Your task to perform on an android device: turn off location Image 0: 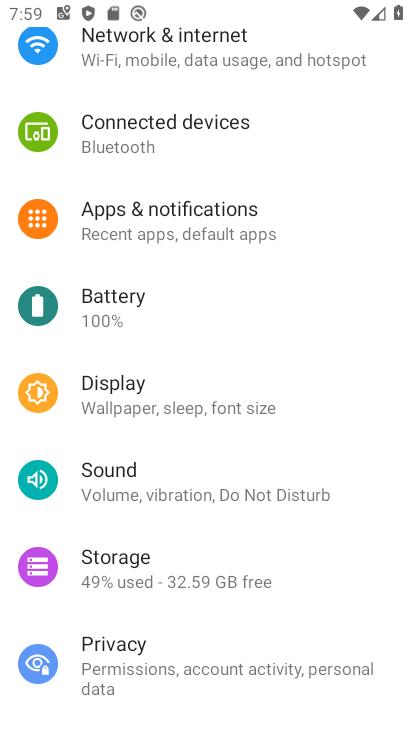
Step 0: drag from (325, 467) to (313, 236)
Your task to perform on an android device: turn off location Image 1: 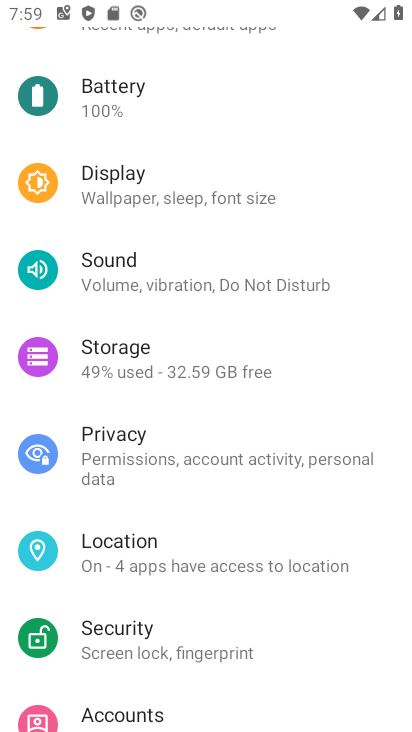
Step 1: click (165, 552)
Your task to perform on an android device: turn off location Image 2: 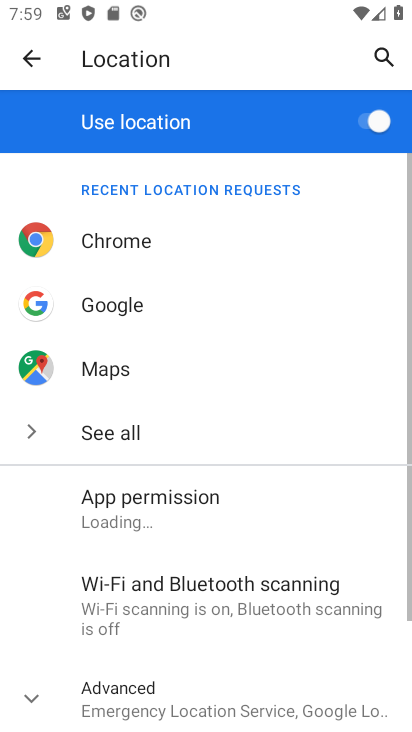
Step 2: click (357, 125)
Your task to perform on an android device: turn off location Image 3: 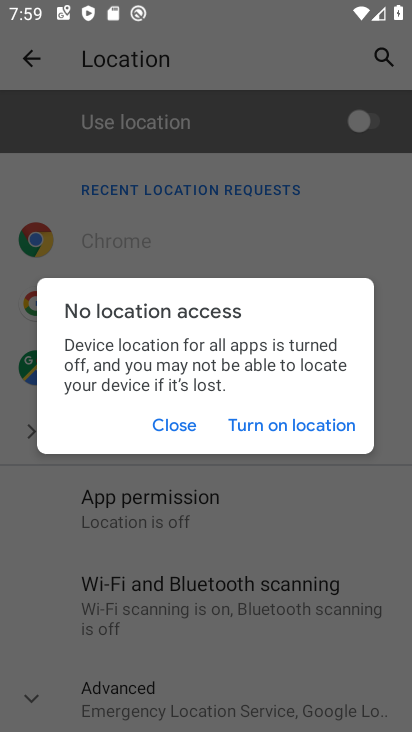
Step 3: click (175, 427)
Your task to perform on an android device: turn off location Image 4: 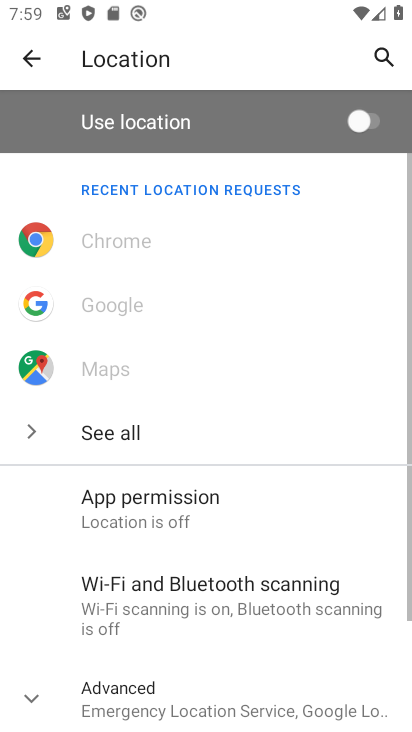
Step 4: task complete